Your task to perform on an android device: What is the average speed of a car? Image 0: 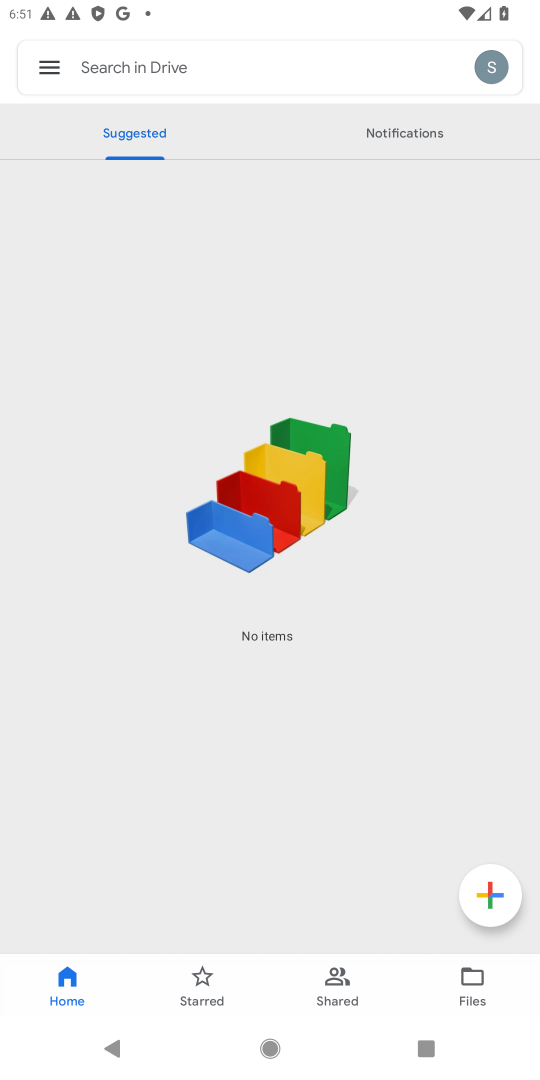
Step 0: press home button
Your task to perform on an android device: What is the average speed of a car? Image 1: 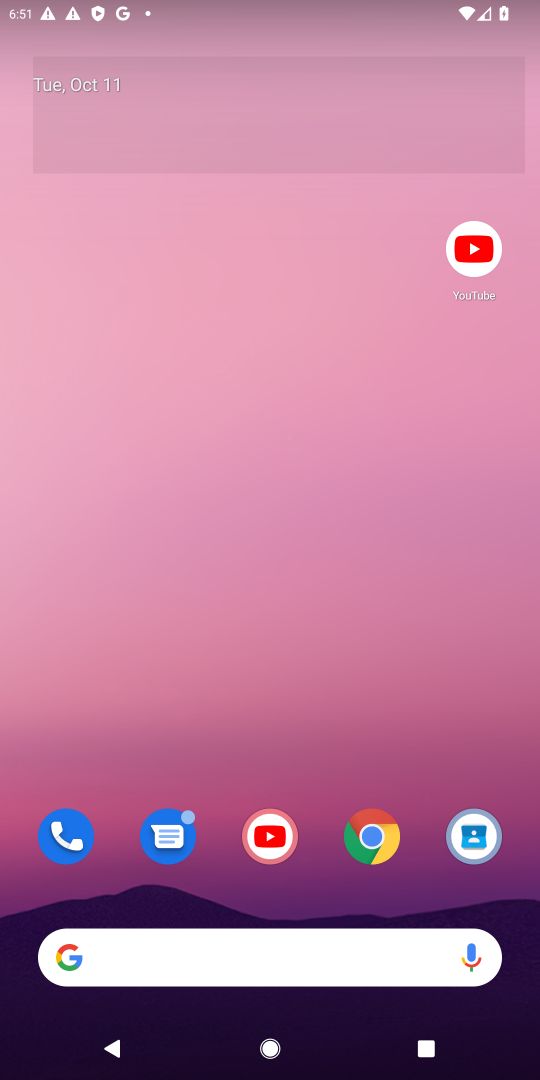
Step 1: click (371, 831)
Your task to perform on an android device: What is the average speed of a car? Image 2: 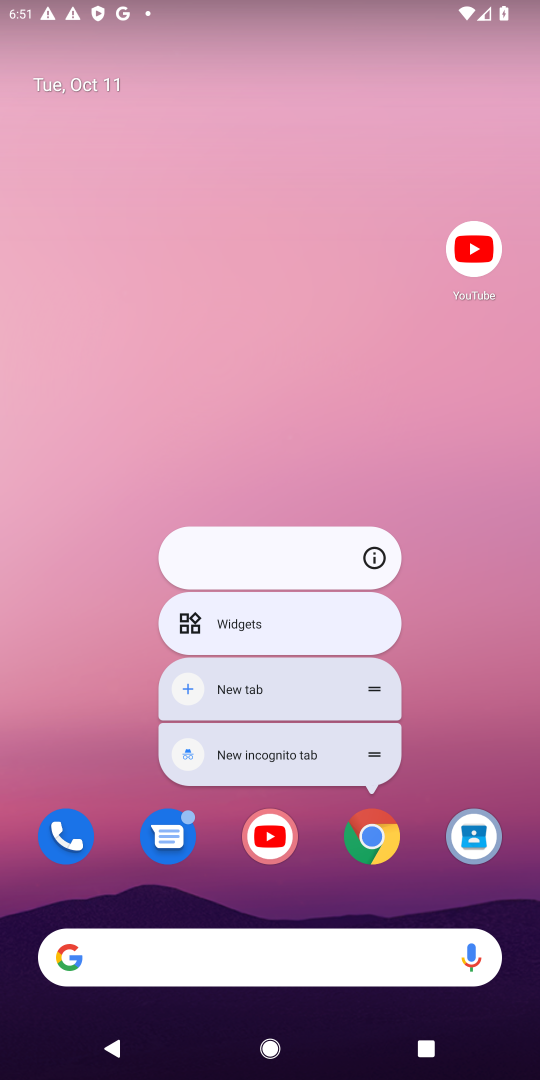
Step 2: click (371, 832)
Your task to perform on an android device: What is the average speed of a car? Image 3: 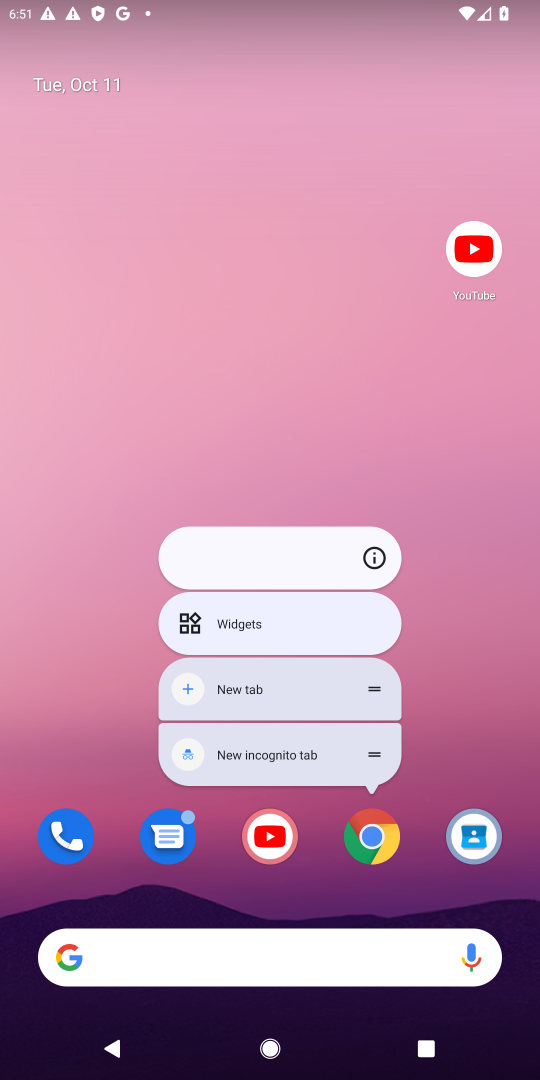
Step 3: click (371, 836)
Your task to perform on an android device: What is the average speed of a car? Image 4: 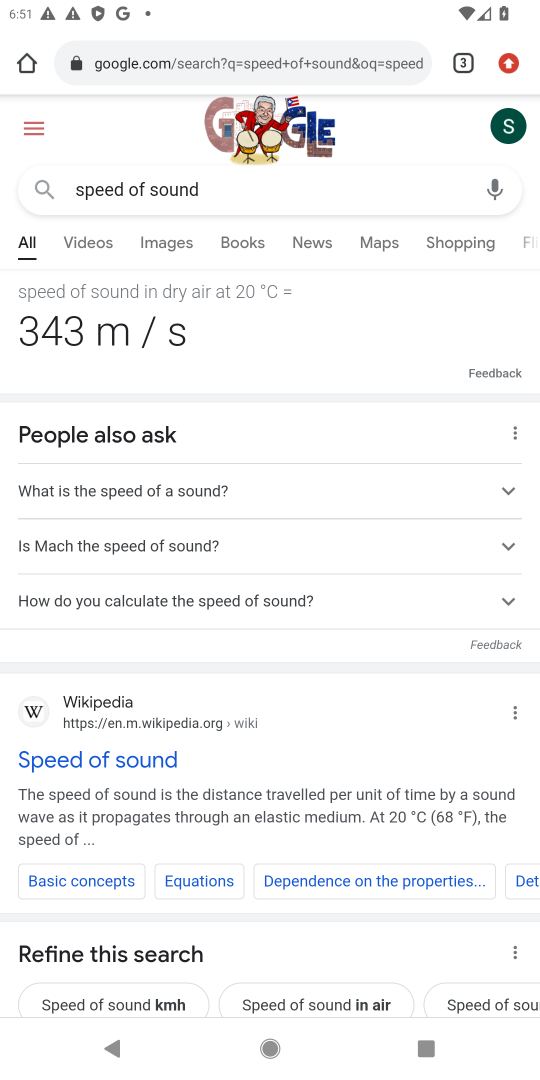
Step 4: click (327, 51)
Your task to perform on an android device: What is the average speed of a car? Image 5: 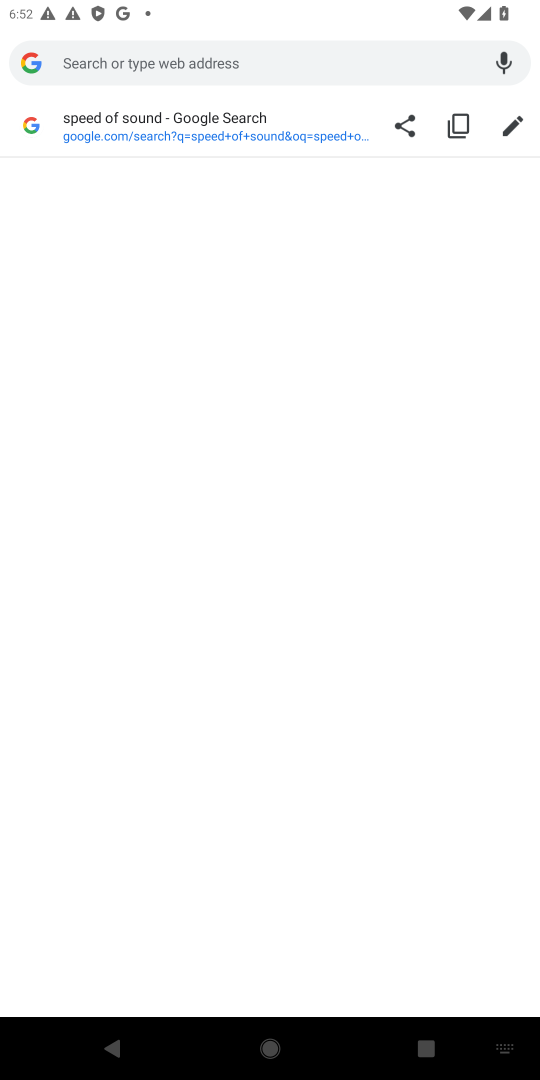
Step 5: type "average speed of a car"
Your task to perform on an android device: What is the average speed of a car? Image 6: 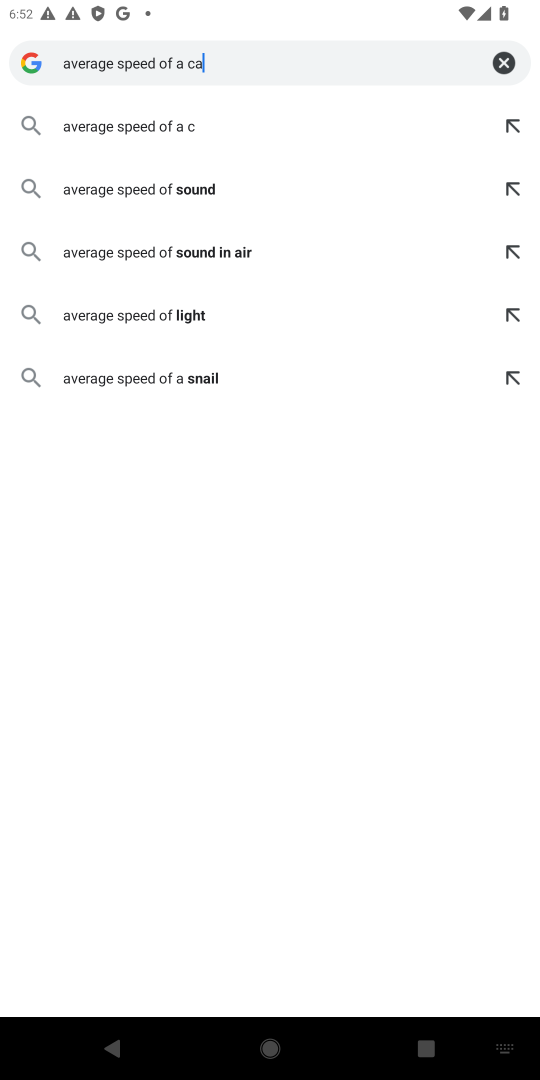
Step 6: press enter
Your task to perform on an android device: What is the average speed of a car? Image 7: 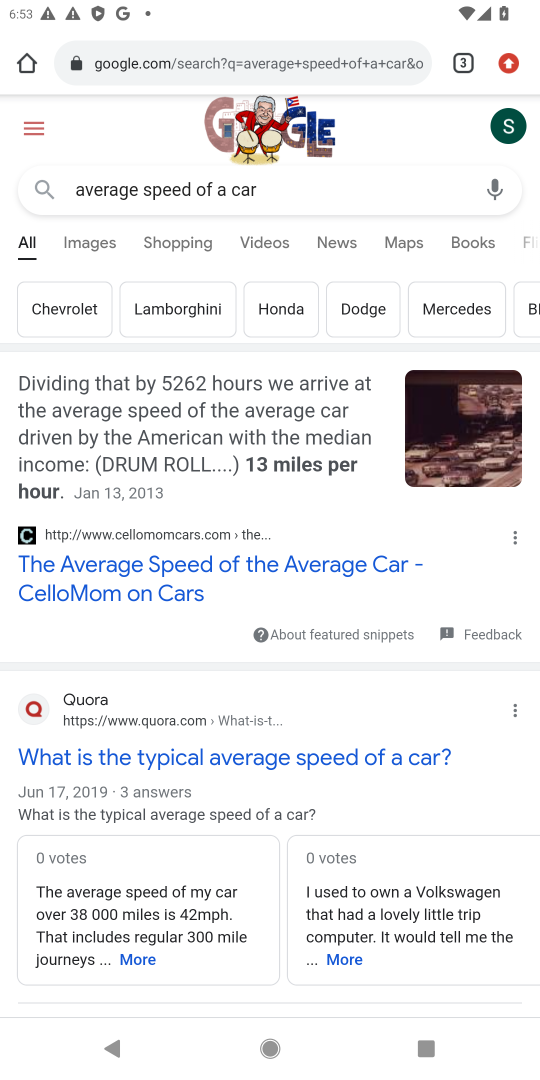
Step 7: task complete